Your task to perform on an android device: Open the phone app and click the voicemail tab. Image 0: 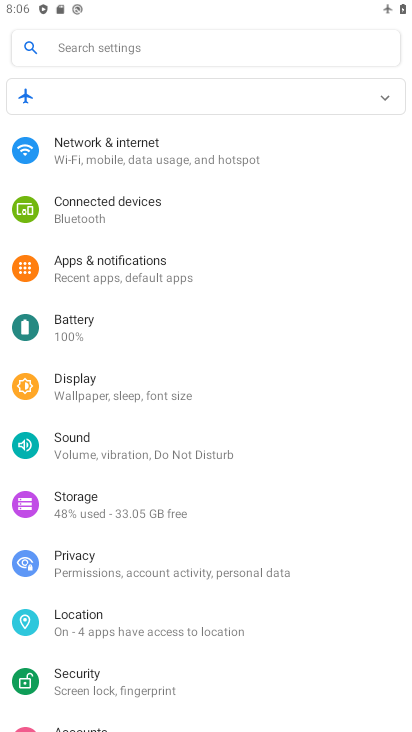
Step 0: press home button
Your task to perform on an android device: Open the phone app and click the voicemail tab. Image 1: 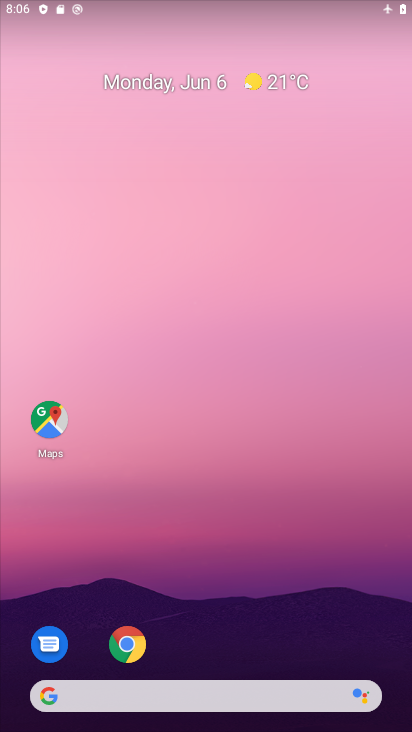
Step 1: drag from (220, 676) to (198, 10)
Your task to perform on an android device: Open the phone app and click the voicemail tab. Image 2: 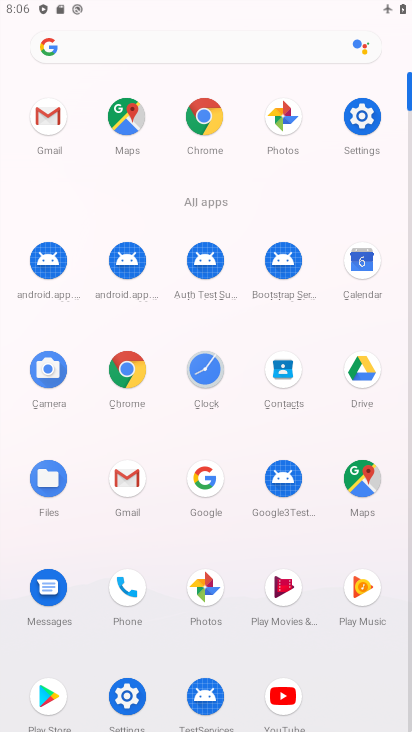
Step 2: click (126, 589)
Your task to perform on an android device: Open the phone app and click the voicemail tab. Image 3: 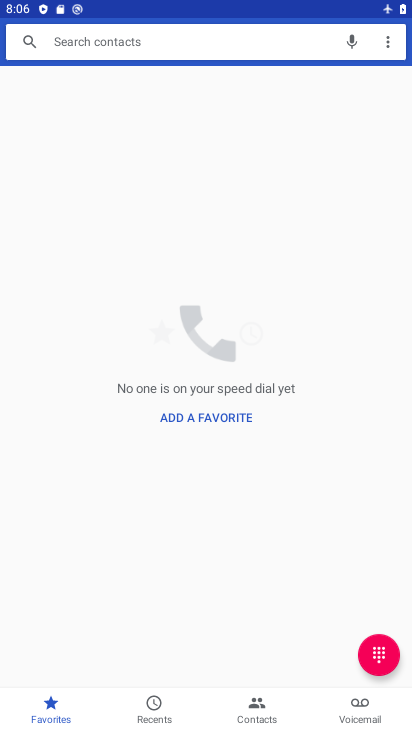
Step 3: click (360, 705)
Your task to perform on an android device: Open the phone app and click the voicemail tab. Image 4: 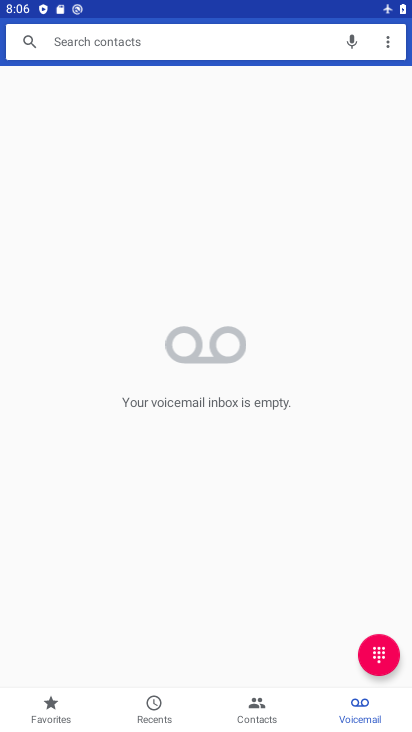
Step 4: task complete